Your task to perform on an android device: Show me the alarms in the clock app Image 0: 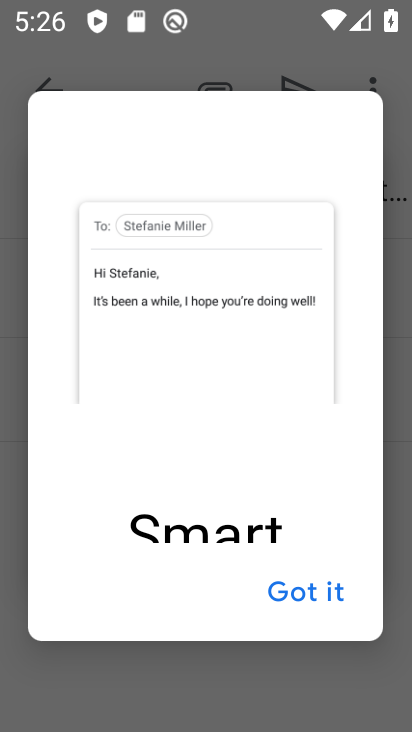
Step 0: press home button
Your task to perform on an android device: Show me the alarms in the clock app Image 1: 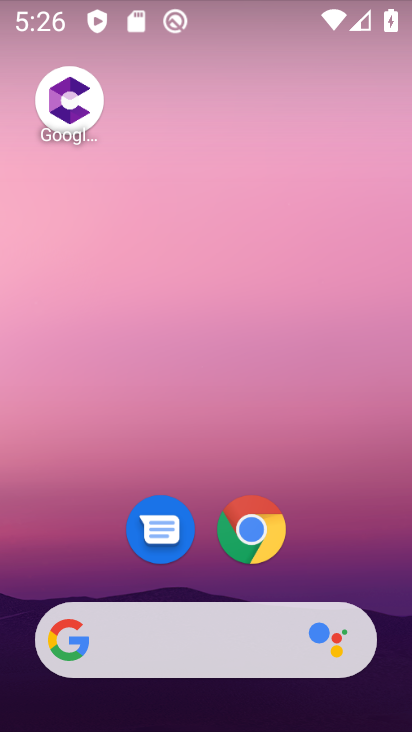
Step 1: drag from (339, 540) to (288, 9)
Your task to perform on an android device: Show me the alarms in the clock app Image 2: 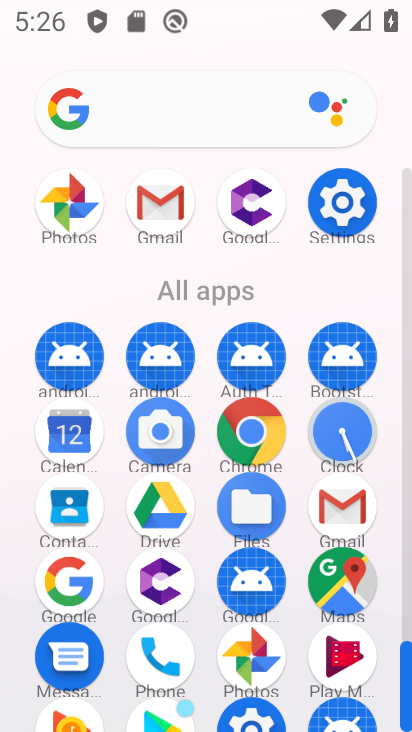
Step 2: click (342, 427)
Your task to perform on an android device: Show me the alarms in the clock app Image 3: 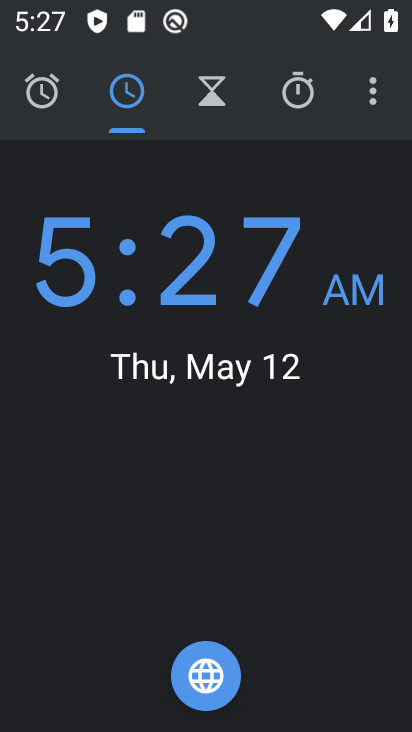
Step 3: click (40, 100)
Your task to perform on an android device: Show me the alarms in the clock app Image 4: 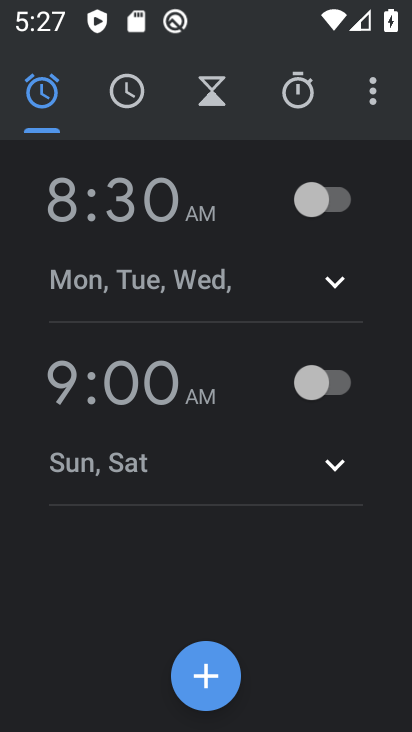
Step 4: task complete